Your task to perform on an android device: Is it going to rain tomorrow? Image 0: 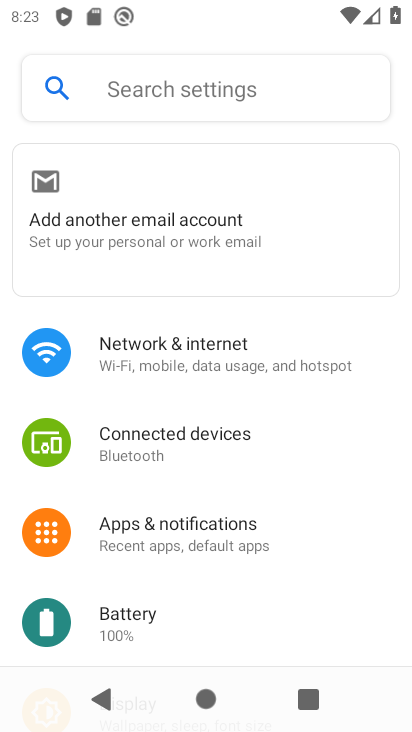
Step 0: press home button
Your task to perform on an android device: Is it going to rain tomorrow? Image 1: 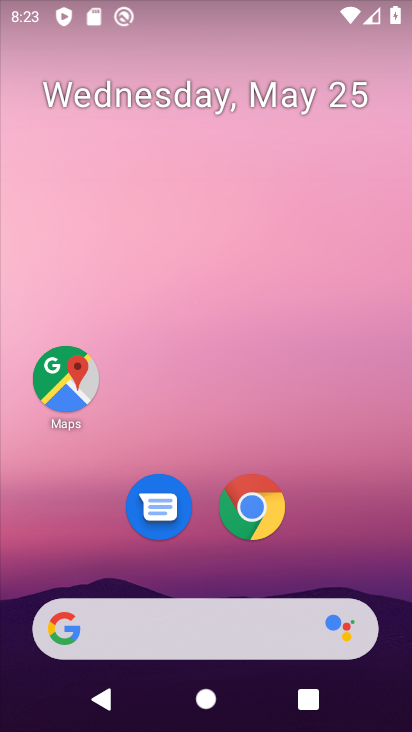
Step 1: click (208, 610)
Your task to perform on an android device: Is it going to rain tomorrow? Image 2: 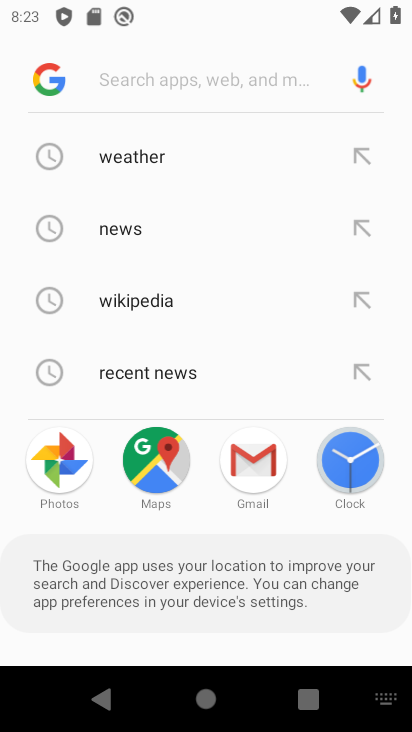
Step 2: click (138, 173)
Your task to perform on an android device: Is it going to rain tomorrow? Image 3: 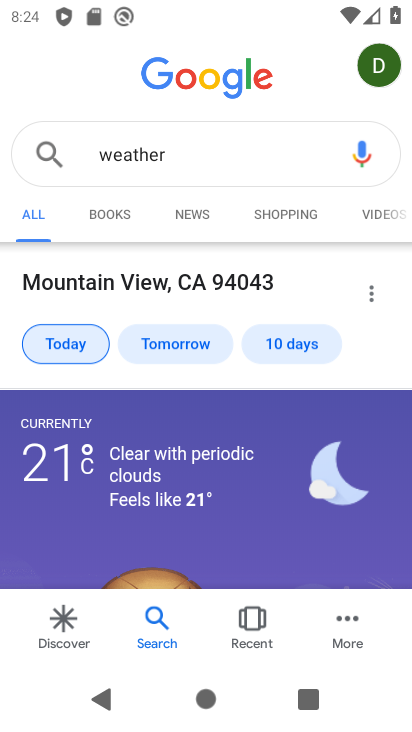
Step 3: click (163, 355)
Your task to perform on an android device: Is it going to rain tomorrow? Image 4: 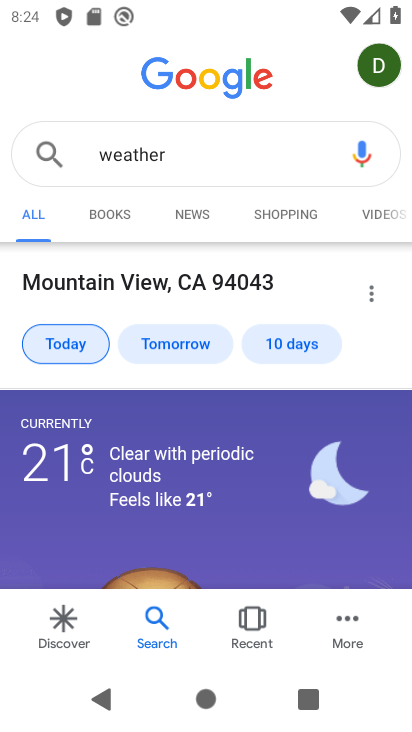
Step 4: click (163, 355)
Your task to perform on an android device: Is it going to rain tomorrow? Image 5: 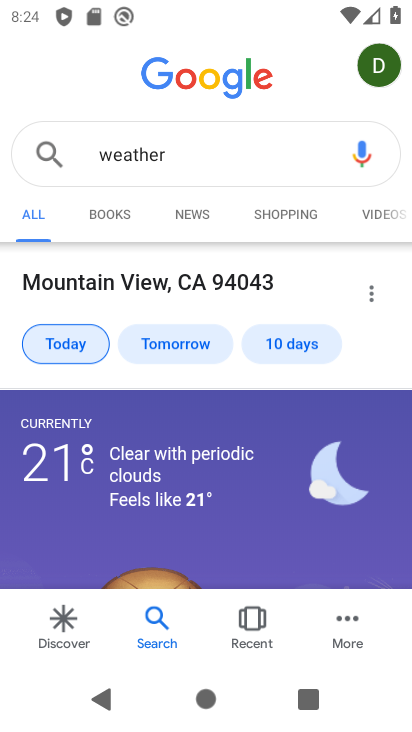
Step 5: click (182, 359)
Your task to perform on an android device: Is it going to rain tomorrow? Image 6: 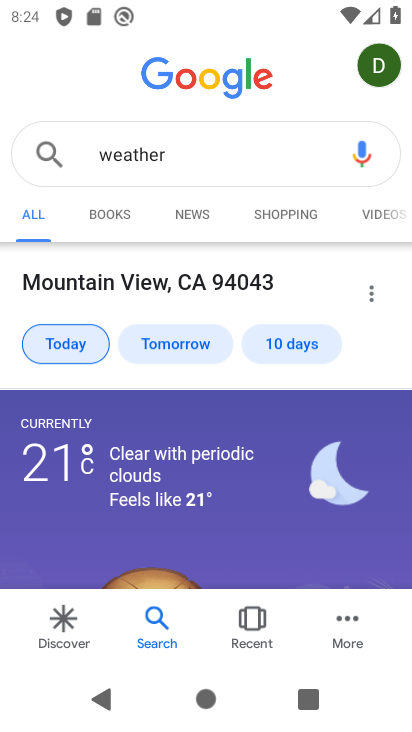
Step 6: click (182, 359)
Your task to perform on an android device: Is it going to rain tomorrow? Image 7: 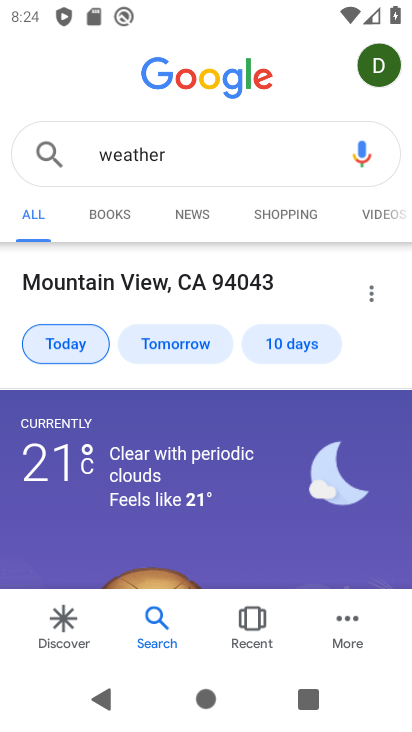
Step 7: click (182, 359)
Your task to perform on an android device: Is it going to rain tomorrow? Image 8: 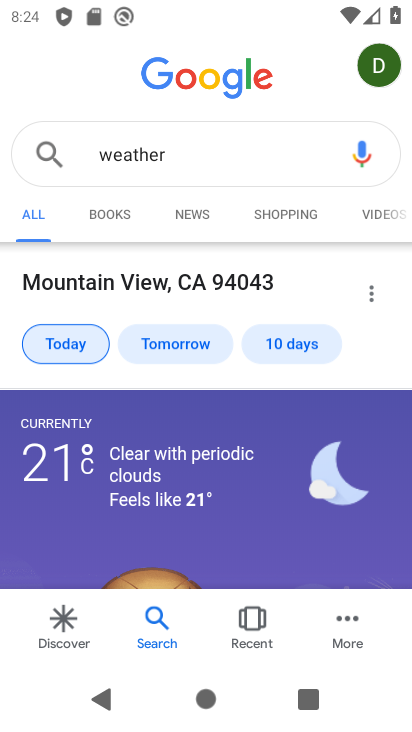
Step 8: click (182, 359)
Your task to perform on an android device: Is it going to rain tomorrow? Image 9: 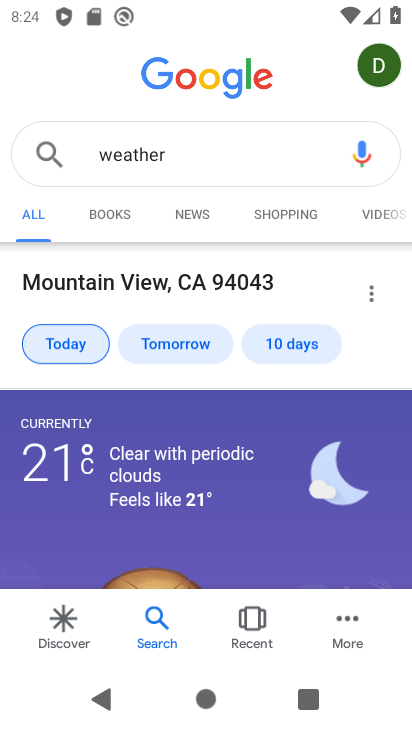
Step 9: click (182, 359)
Your task to perform on an android device: Is it going to rain tomorrow? Image 10: 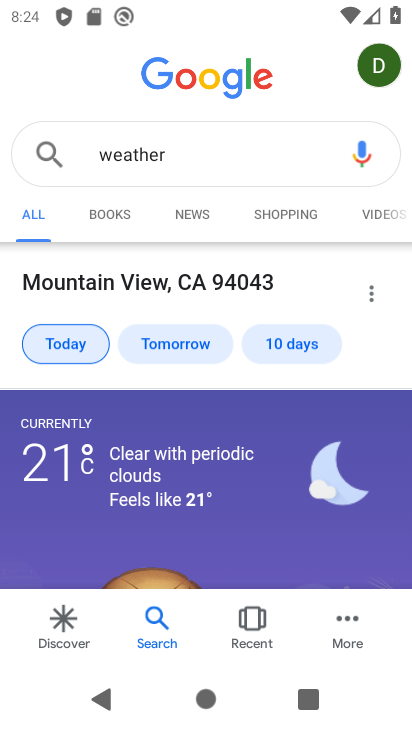
Step 10: click (182, 359)
Your task to perform on an android device: Is it going to rain tomorrow? Image 11: 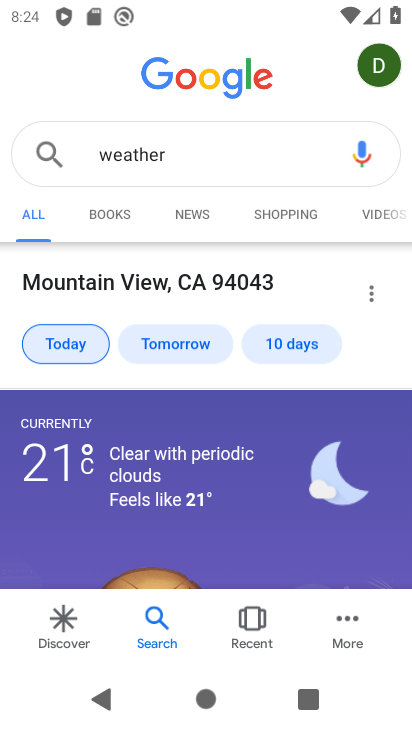
Step 11: click (182, 359)
Your task to perform on an android device: Is it going to rain tomorrow? Image 12: 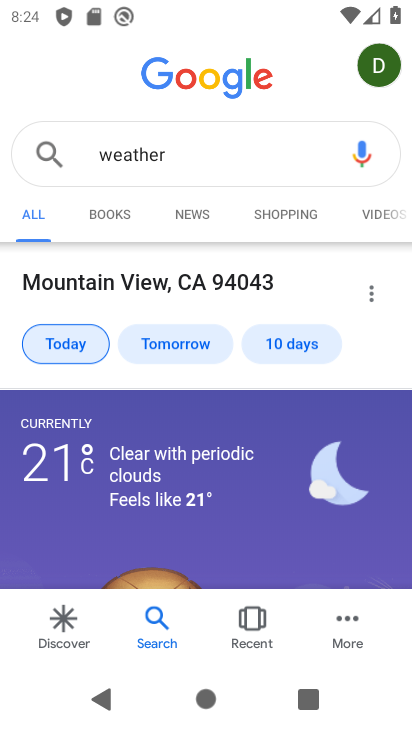
Step 12: click (182, 359)
Your task to perform on an android device: Is it going to rain tomorrow? Image 13: 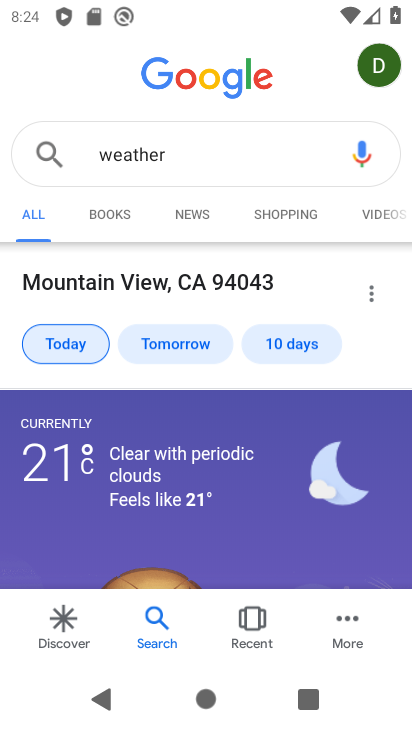
Step 13: click (182, 359)
Your task to perform on an android device: Is it going to rain tomorrow? Image 14: 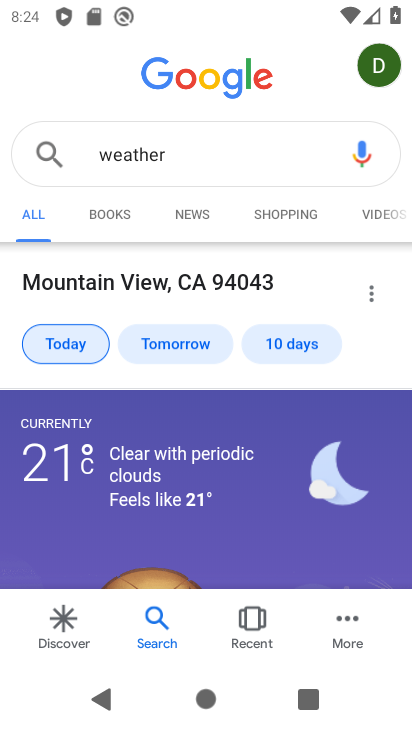
Step 14: click (182, 359)
Your task to perform on an android device: Is it going to rain tomorrow? Image 15: 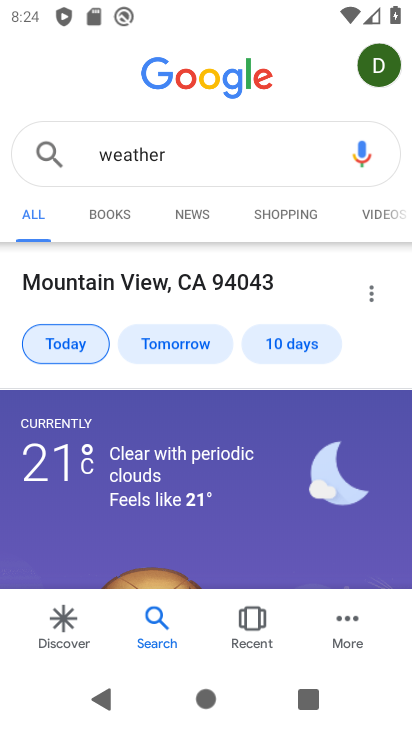
Step 15: click (182, 359)
Your task to perform on an android device: Is it going to rain tomorrow? Image 16: 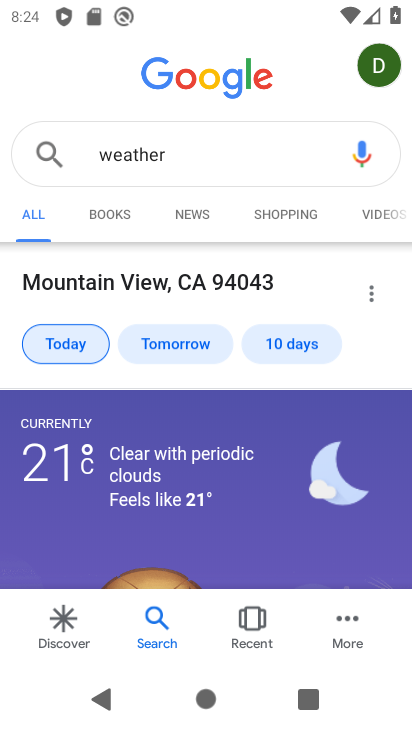
Step 16: task complete